Your task to perform on an android device: Check the weather Image 0: 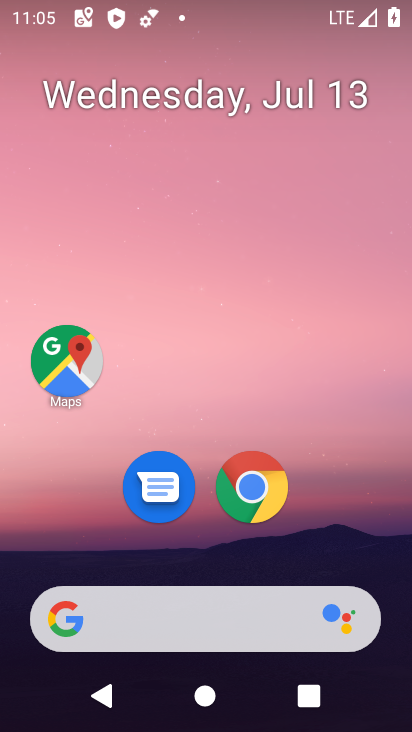
Step 0: click (223, 610)
Your task to perform on an android device: Check the weather Image 1: 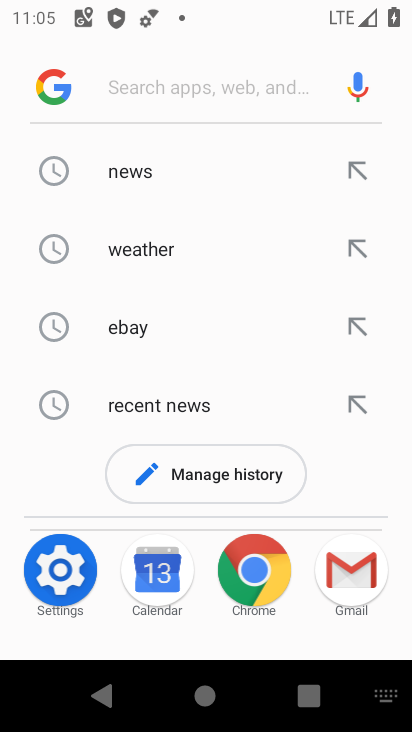
Step 1: click (114, 245)
Your task to perform on an android device: Check the weather Image 2: 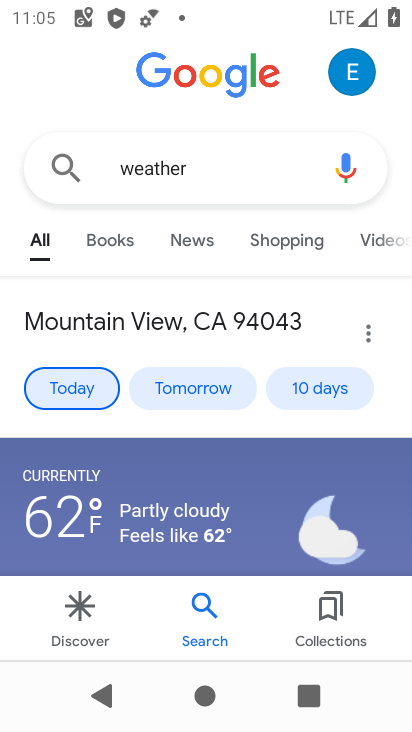
Step 2: task complete